Your task to perform on an android device: Open Google Chrome and click the shortcut for Amazon.com Image 0: 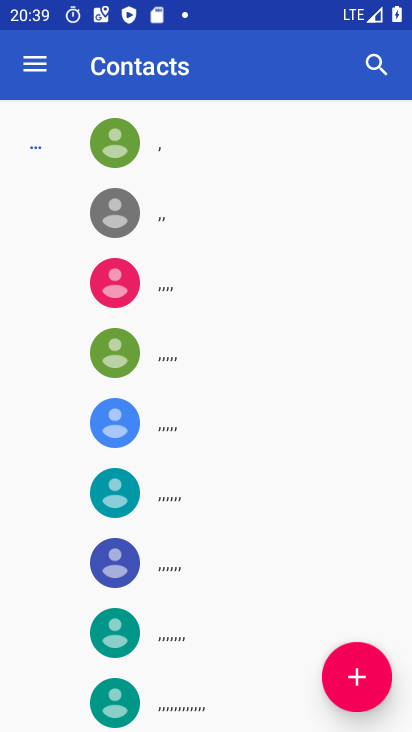
Step 0: press home button
Your task to perform on an android device: Open Google Chrome and click the shortcut for Amazon.com Image 1: 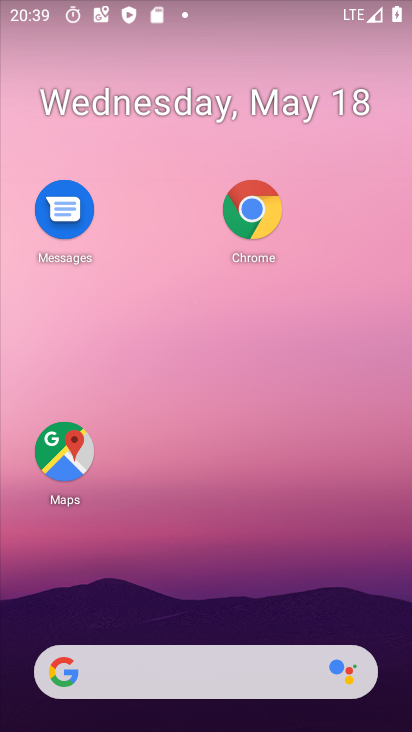
Step 1: click (263, 205)
Your task to perform on an android device: Open Google Chrome and click the shortcut for Amazon.com Image 2: 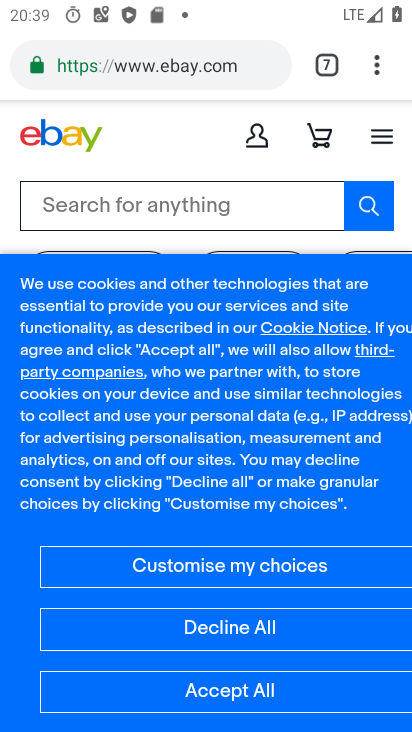
Step 2: click (328, 69)
Your task to perform on an android device: Open Google Chrome and click the shortcut for Amazon.com Image 3: 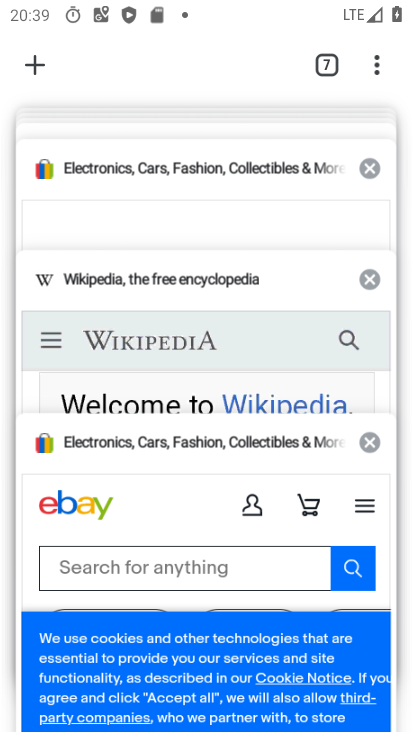
Step 3: click (31, 70)
Your task to perform on an android device: Open Google Chrome and click the shortcut for Amazon.com Image 4: 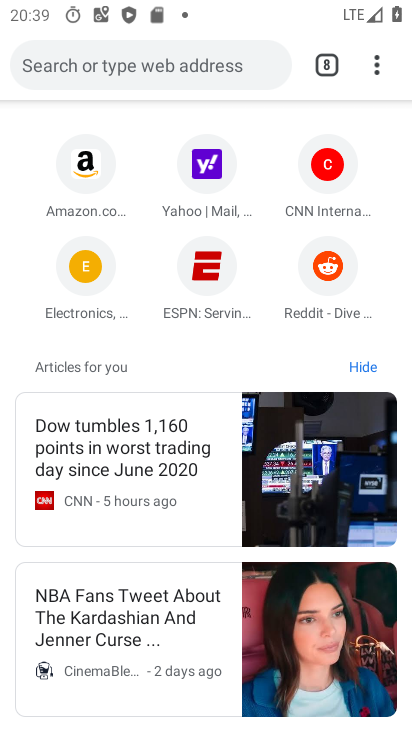
Step 4: click (84, 148)
Your task to perform on an android device: Open Google Chrome and click the shortcut for Amazon.com Image 5: 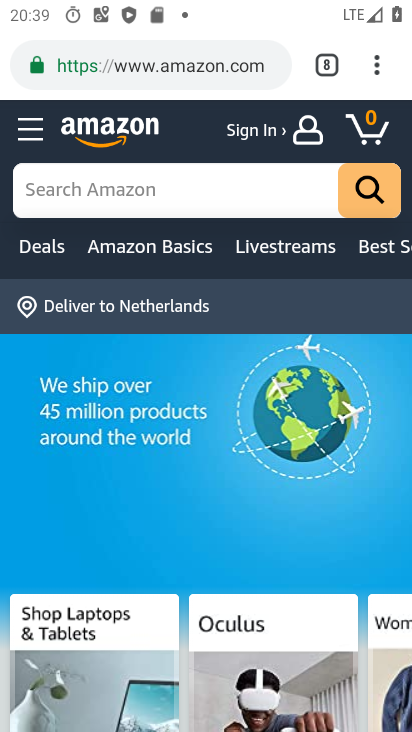
Step 5: task complete